Your task to perform on an android device: When is my next appointment? Image 0: 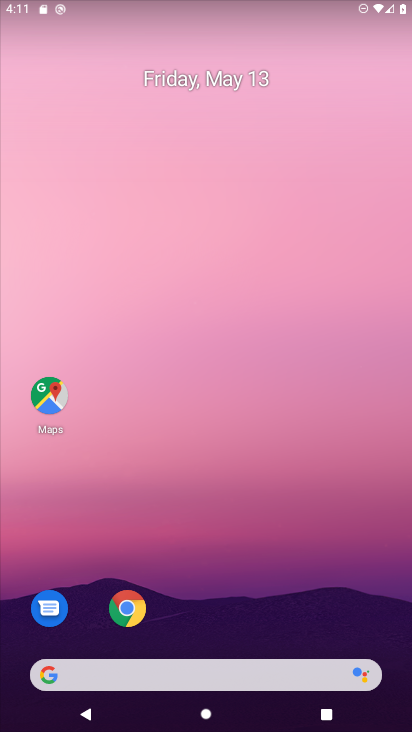
Step 0: drag from (296, 639) to (404, 469)
Your task to perform on an android device: When is my next appointment? Image 1: 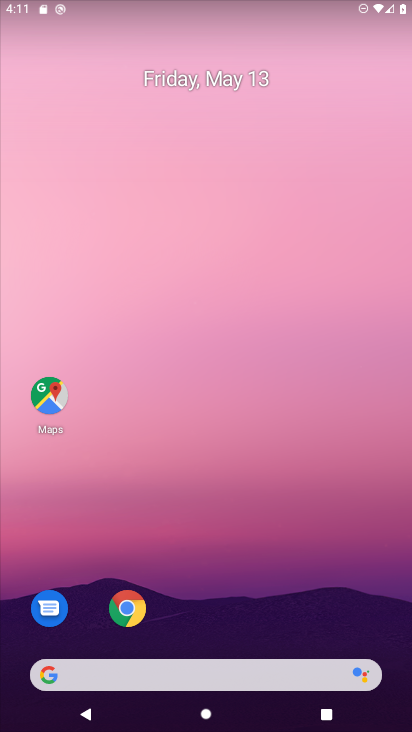
Step 1: drag from (246, 654) to (391, 13)
Your task to perform on an android device: When is my next appointment? Image 2: 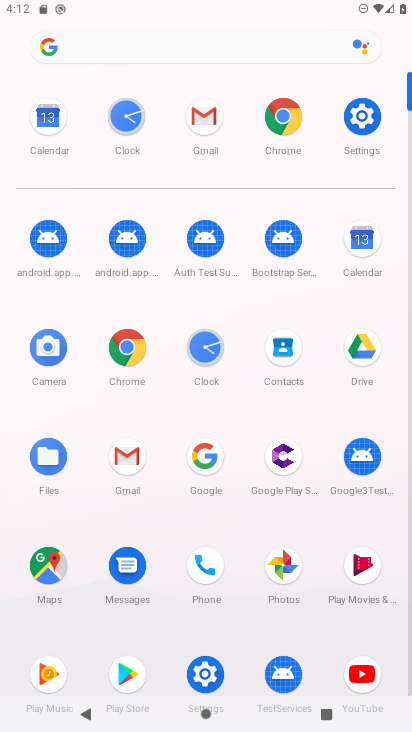
Step 2: click (362, 238)
Your task to perform on an android device: When is my next appointment? Image 3: 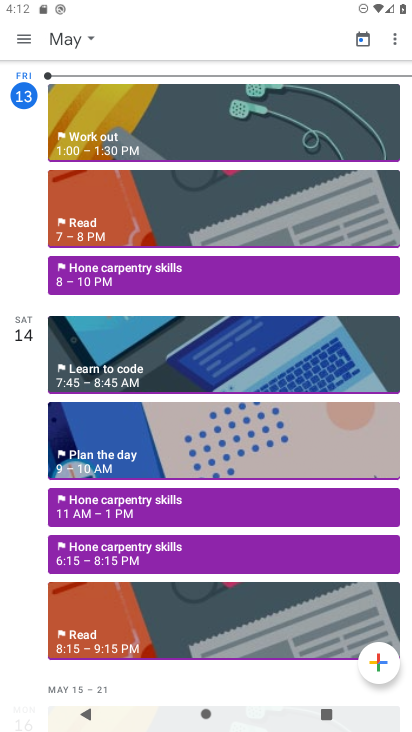
Step 3: click (85, 32)
Your task to perform on an android device: When is my next appointment? Image 4: 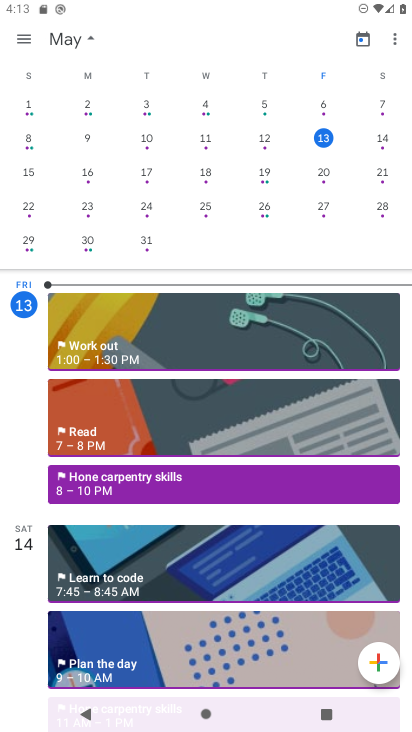
Step 4: click (322, 138)
Your task to perform on an android device: When is my next appointment? Image 5: 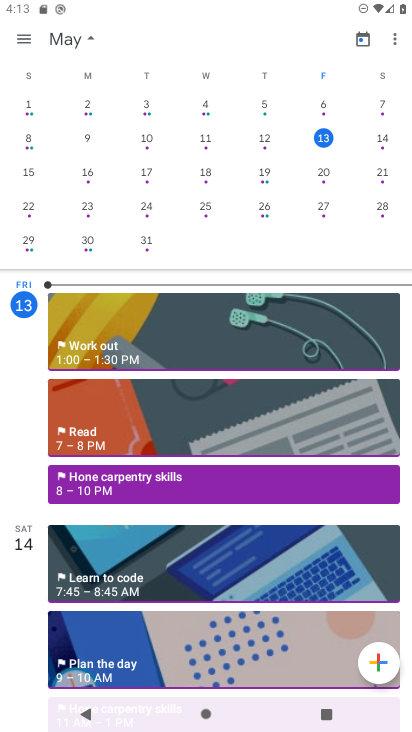
Step 5: task complete